Your task to perform on an android device: turn on priority inbox in the gmail app Image 0: 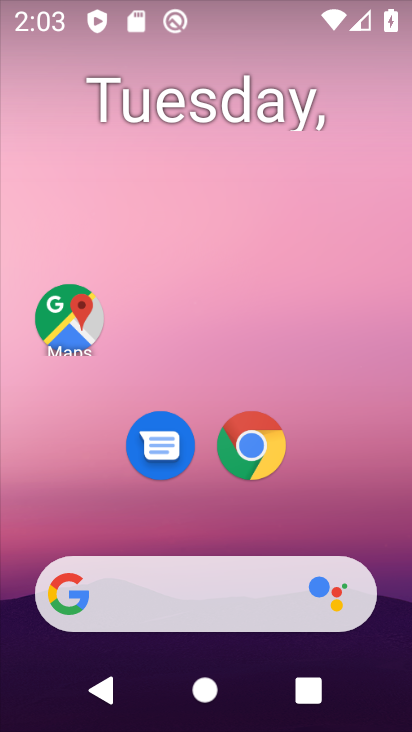
Step 0: drag from (196, 530) to (323, 33)
Your task to perform on an android device: turn on priority inbox in the gmail app Image 1: 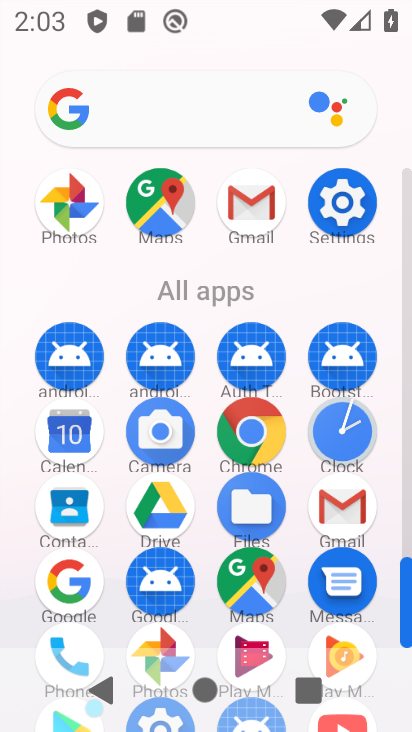
Step 1: click (245, 223)
Your task to perform on an android device: turn on priority inbox in the gmail app Image 2: 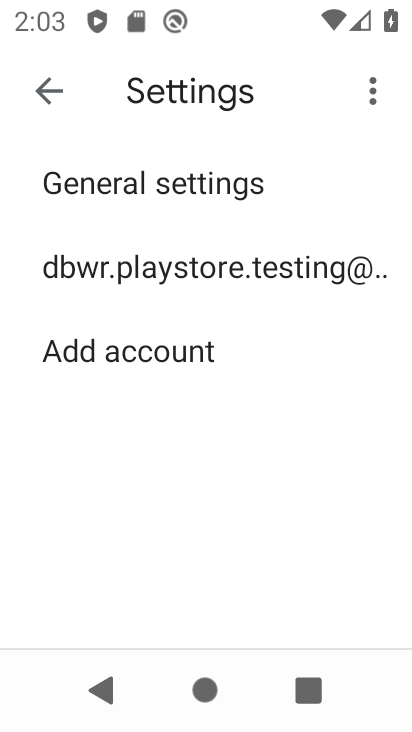
Step 2: click (200, 265)
Your task to perform on an android device: turn on priority inbox in the gmail app Image 3: 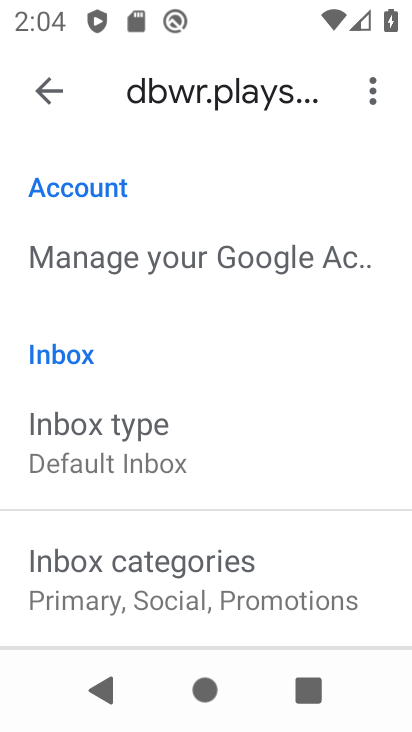
Step 3: click (196, 465)
Your task to perform on an android device: turn on priority inbox in the gmail app Image 4: 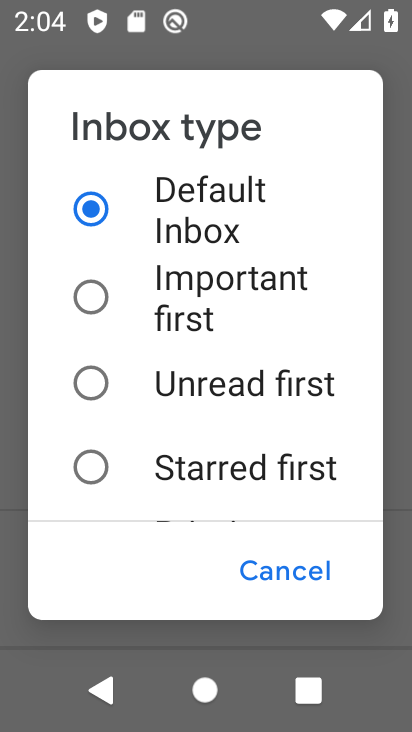
Step 4: drag from (145, 497) to (250, 35)
Your task to perform on an android device: turn on priority inbox in the gmail app Image 5: 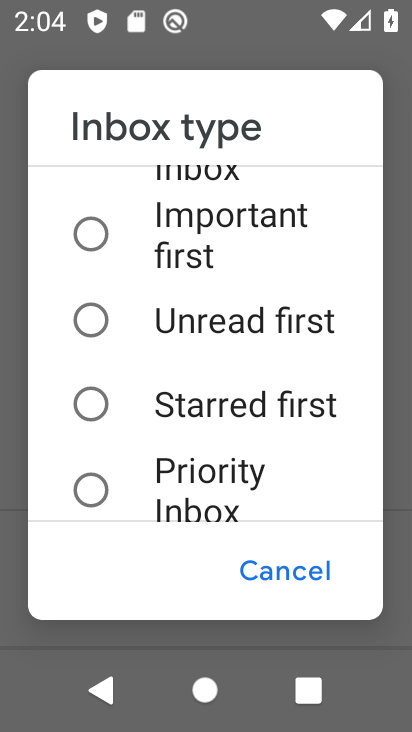
Step 5: click (153, 485)
Your task to perform on an android device: turn on priority inbox in the gmail app Image 6: 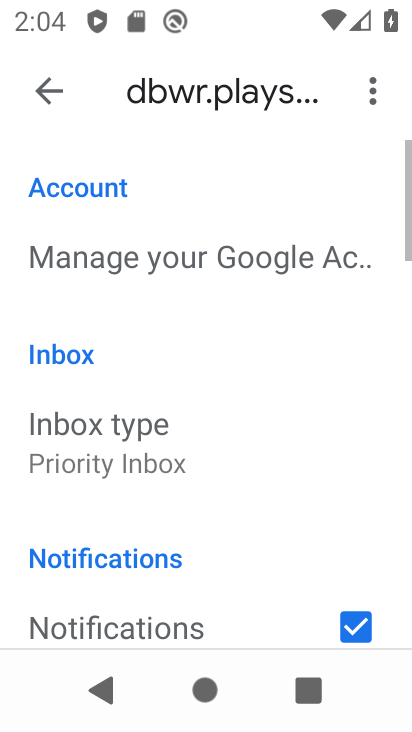
Step 6: task complete